Your task to perform on an android device: turn pop-ups off in chrome Image 0: 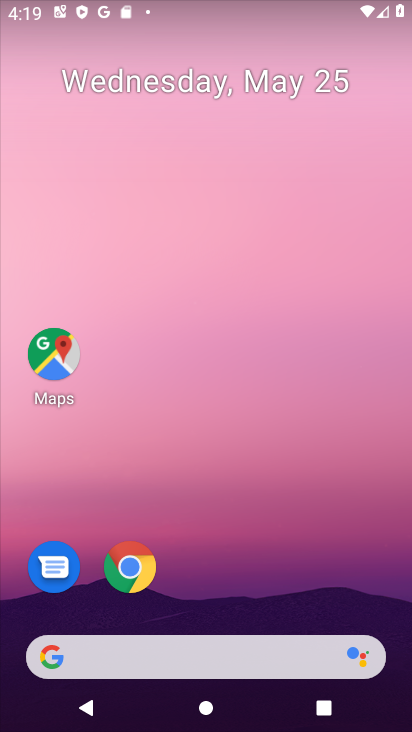
Step 0: drag from (295, 541) to (244, 42)
Your task to perform on an android device: turn pop-ups off in chrome Image 1: 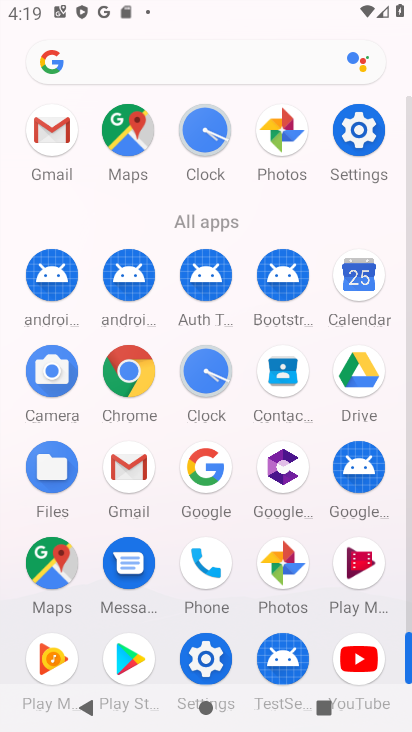
Step 1: drag from (4, 546) to (3, 242)
Your task to perform on an android device: turn pop-ups off in chrome Image 2: 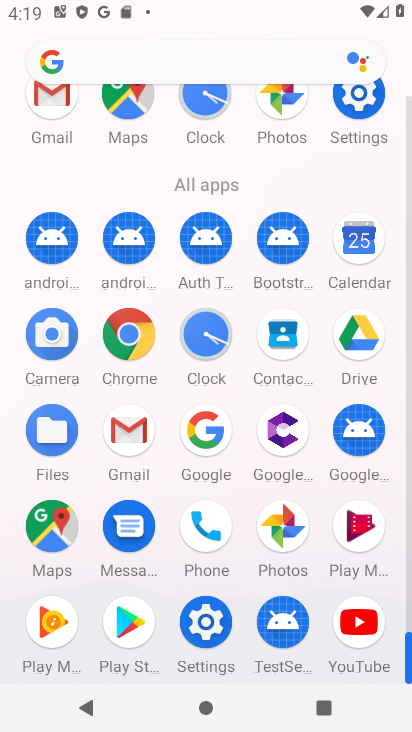
Step 2: click (127, 330)
Your task to perform on an android device: turn pop-ups off in chrome Image 3: 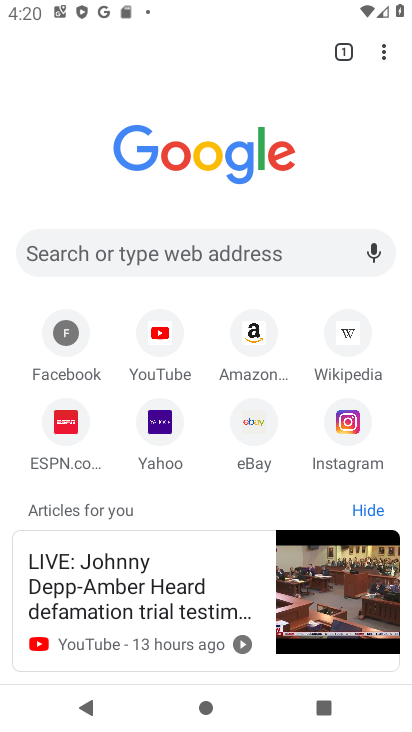
Step 3: drag from (380, 55) to (236, 428)
Your task to perform on an android device: turn pop-ups off in chrome Image 4: 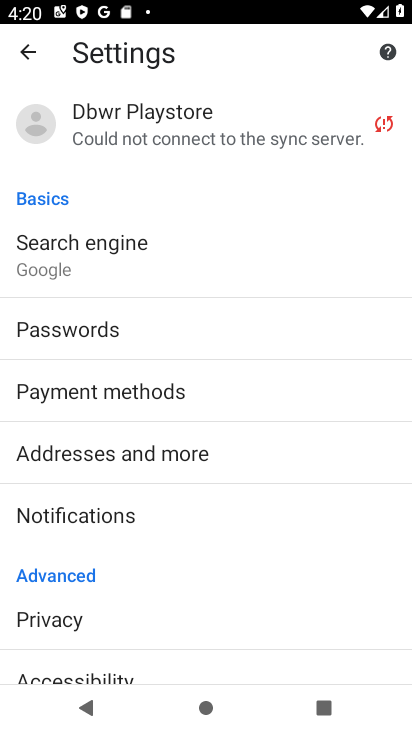
Step 4: drag from (194, 580) to (208, 177)
Your task to perform on an android device: turn pop-ups off in chrome Image 5: 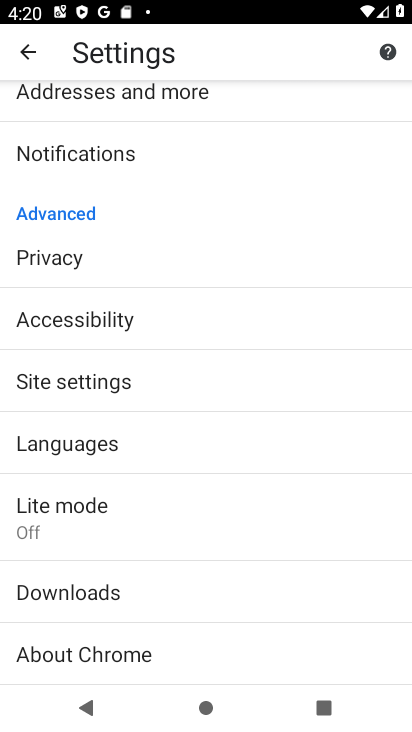
Step 5: click (114, 373)
Your task to perform on an android device: turn pop-ups off in chrome Image 6: 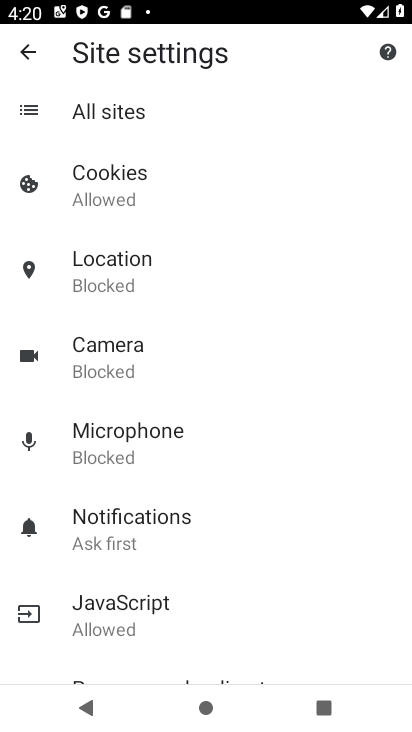
Step 6: drag from (200, 556) to (248, 124)
Your task to perform on an android device: turn pop-ups off in chrome Image 7: 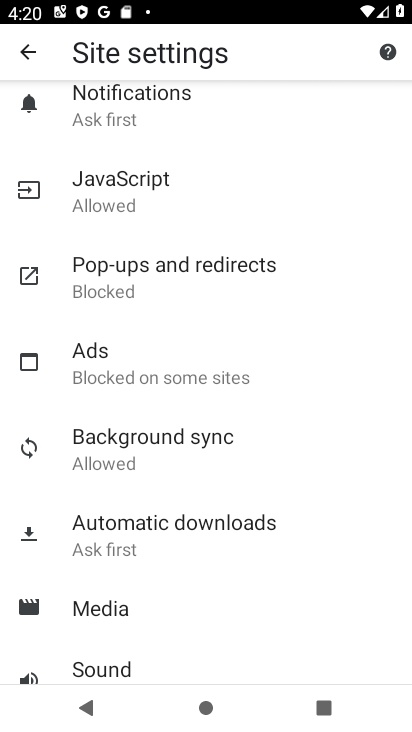
Step 7: click (141, 274)
Your task to perform on an android device: turn pop-ups off in chrome Image 8: 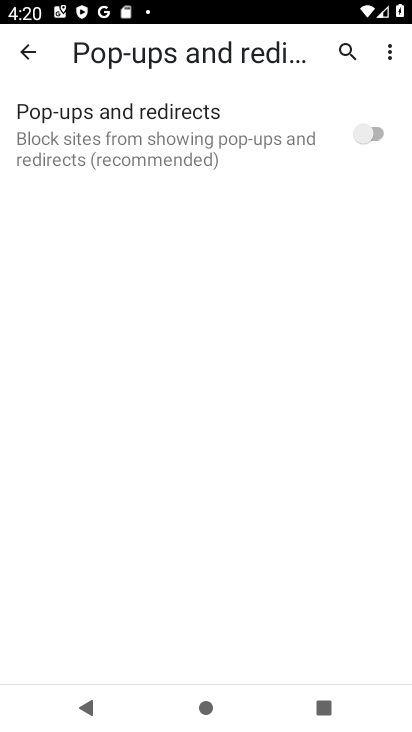
Step 8: task complete